Your task to perform on an android device: Open Yahoo.com Image 0: 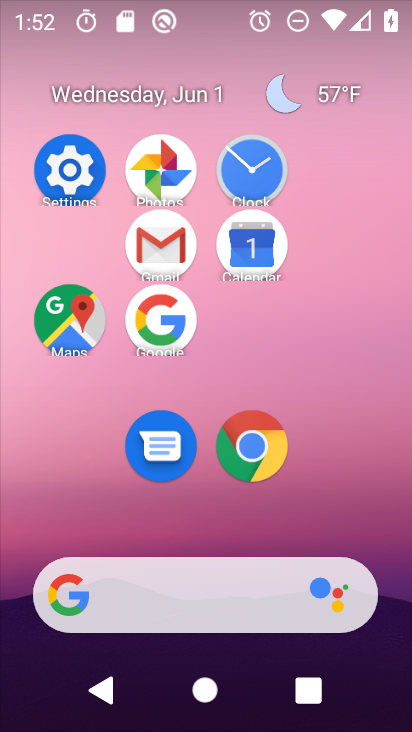
Step 0: click (232, 435)
Your task to perform on an android device: Open Yahoo.com Image 1: 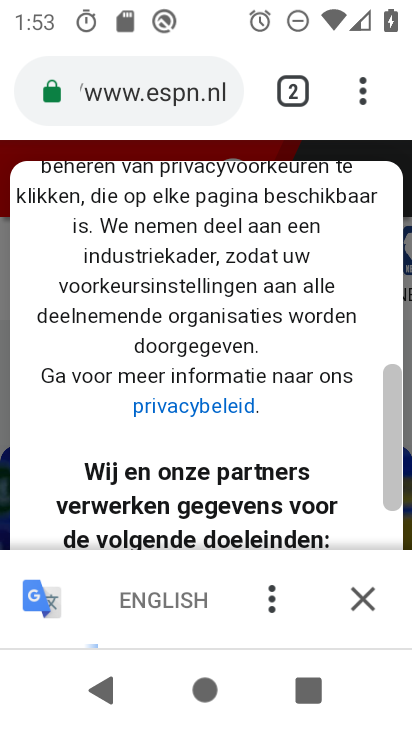
Step 1: click (302, 86)
Your task to perform on an android device: Open Yahoo.com Image 2: 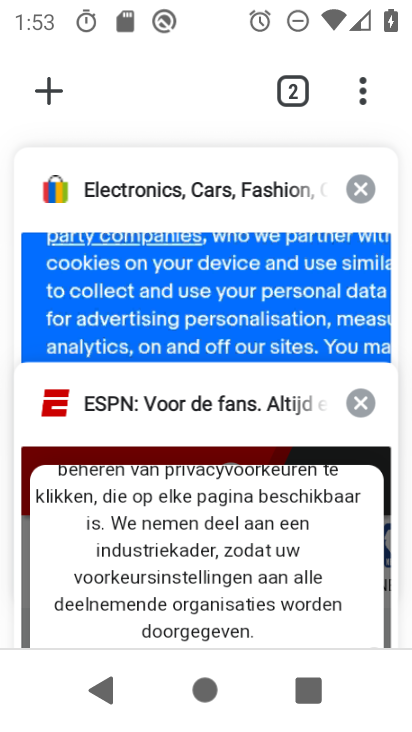
Step 2: click (63, 98)
Your task to perform on an android device: Open Yahoo.com Image 3: 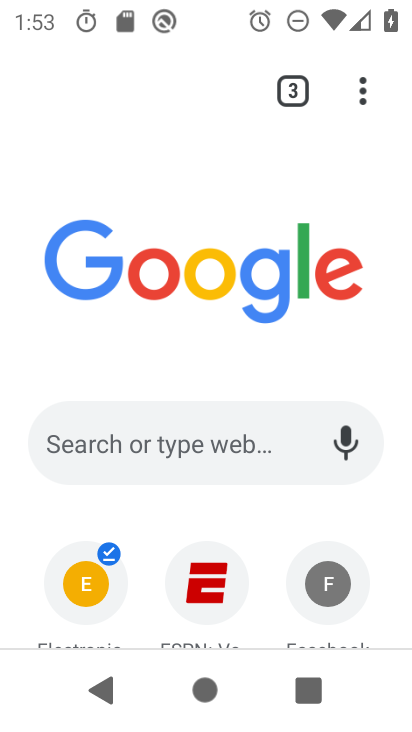
Step 3: drag from (301, 530) to (309, 115)
Your task to perform on an android device: Open Yahoo.com Image 4: 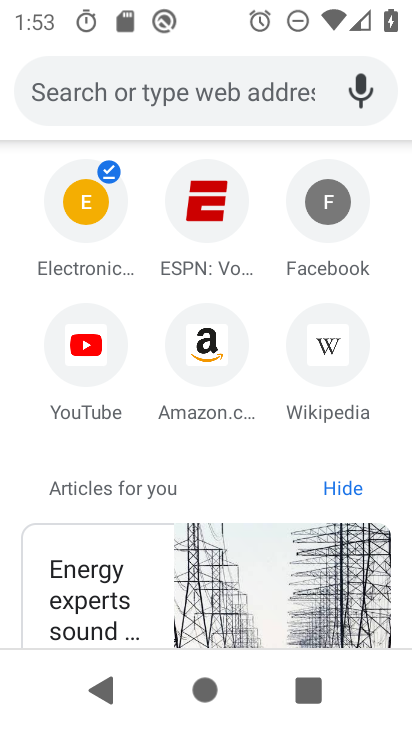
Step 4: click (224, 83)
Your task to perform on an android device: Open Yahoo.com Image 5: 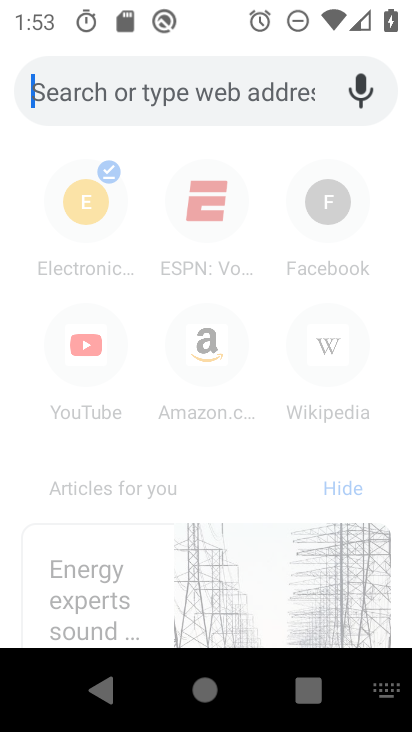
Step 5: type "yahoo"
Your task to perform on an android device: Open Yahoo.com Image 6: 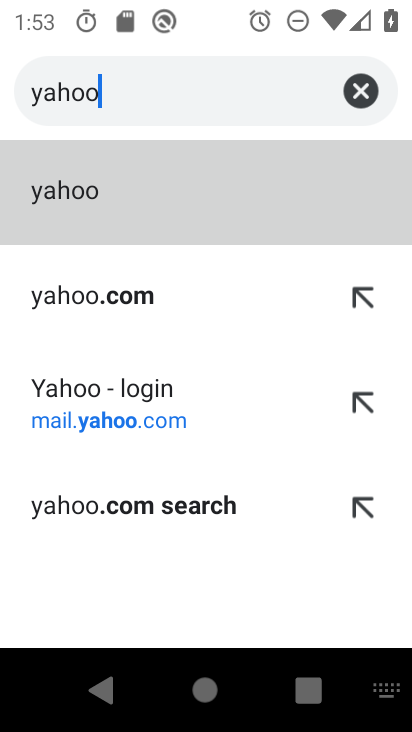
Step 6: click (43, 286)
Your task to perform on an android device: Open Yahoo.com Image 7: 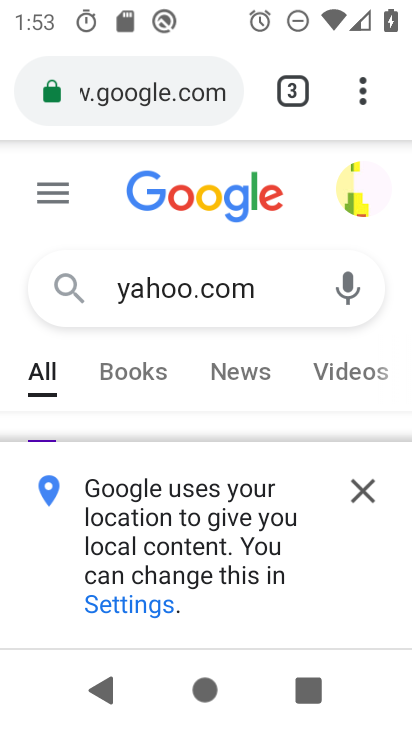
Step 7: click (362, 507)
Your task to perform on an android device: Open Yahoo.com Image 8: 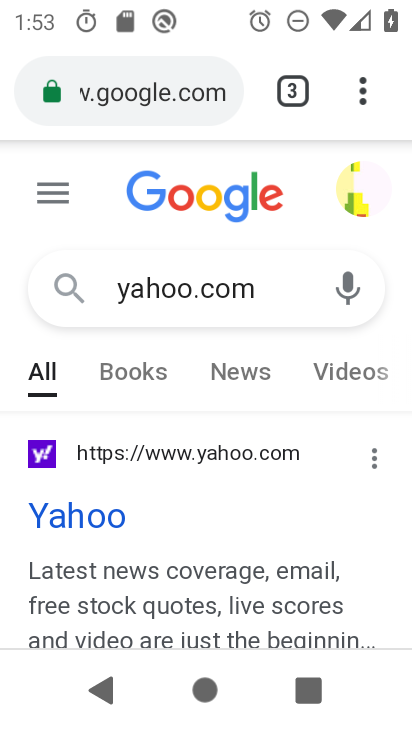
Step 8: click (77, 517)
Your task to perform on an android device: Open Yahoo.com Image 9: 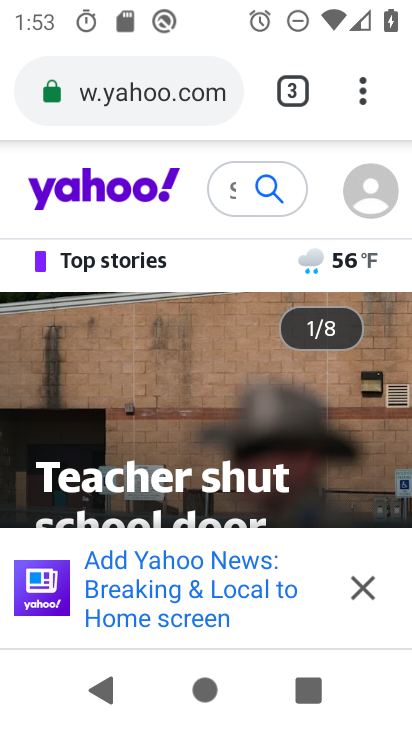
Step 9: task complete